Your task to perform on an android device: manage bookmarks in the chrome app Image 0: 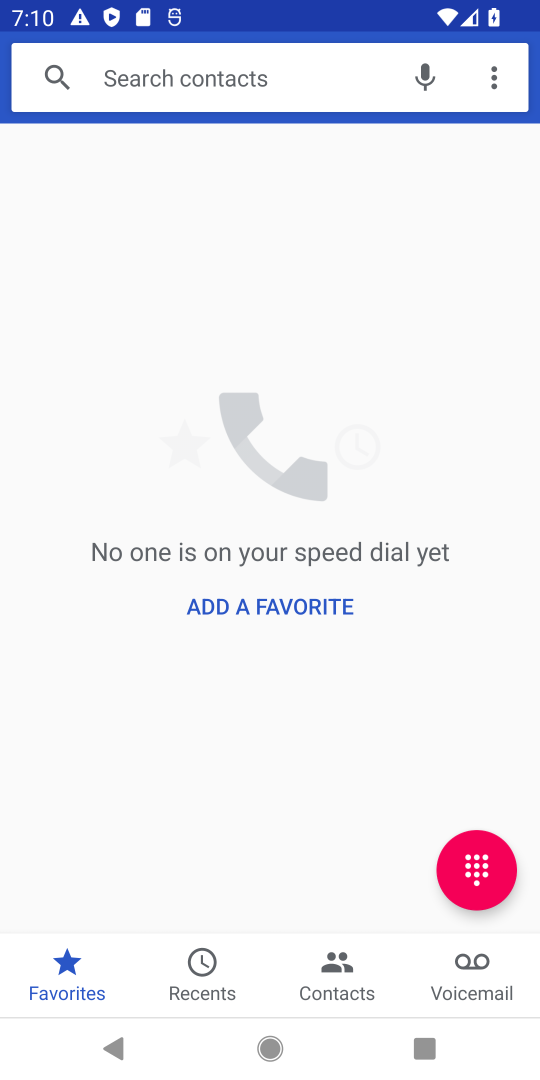
Step 0: press home button
Your task to perform on an android device: manage bookmarks in the chrome app Image 1: 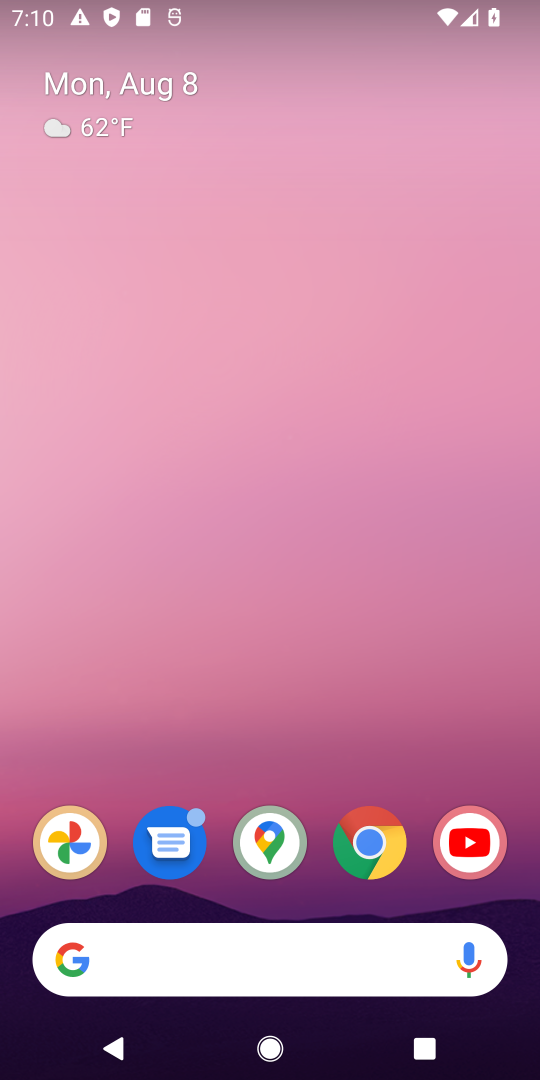
Step 1: click (353, 845)
Your task to perform on an android device: manage bookmarks in the chrome app Image 2: 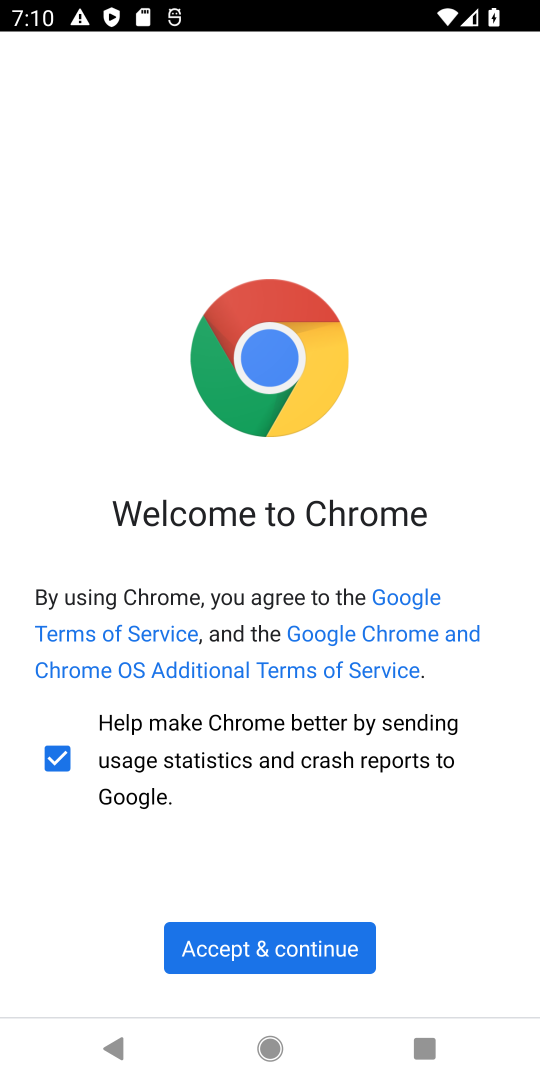
Step 2: click (289, 942)
Your task to perform on an android device: manage bookmarks in the chrome app Image 3: 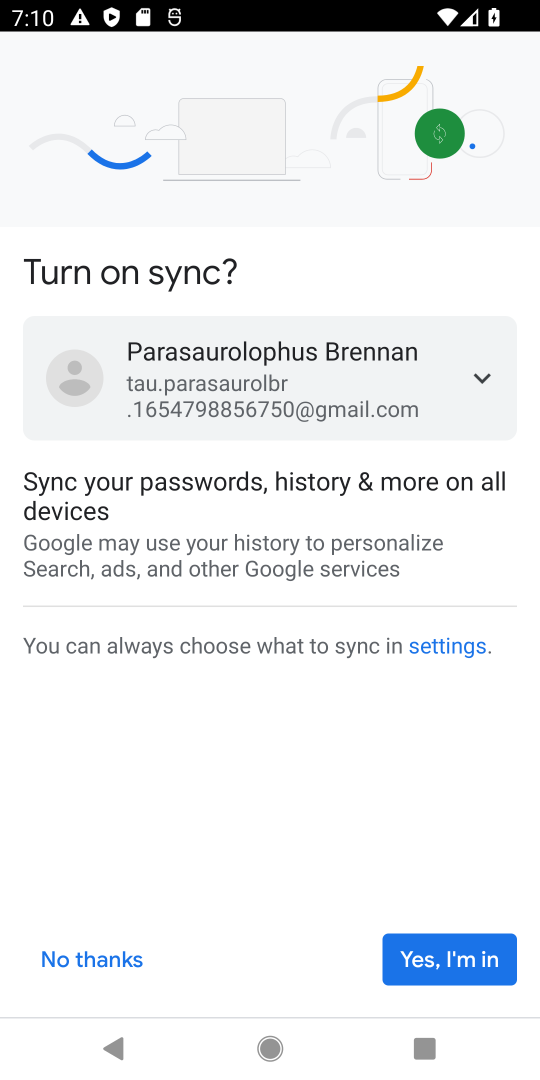
Step 3: click (483, 952)
Your task to perform on an android device: manage bookmarks in the chrome app Image 4: 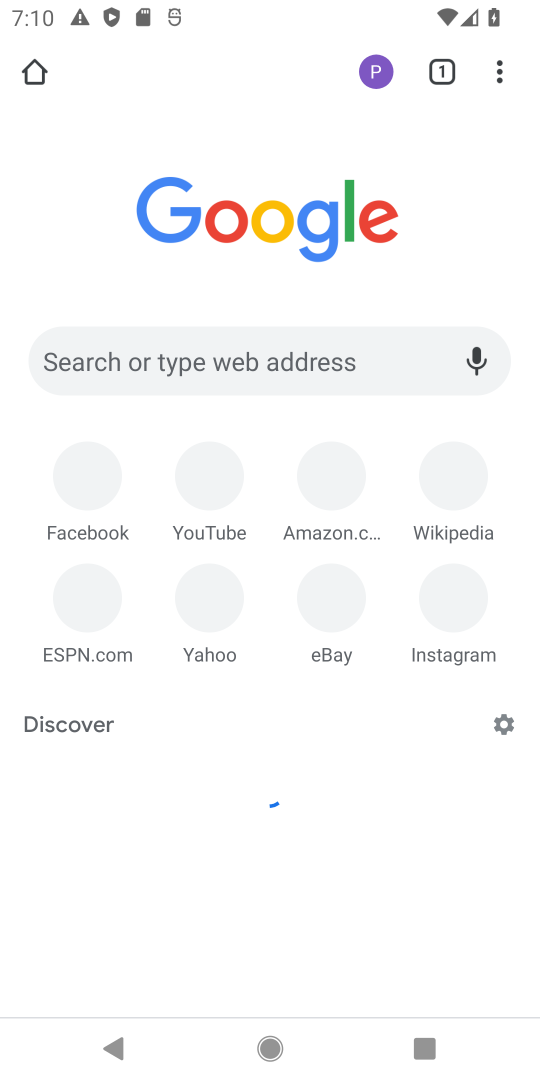
Step 4: click (501, 69)
Your task to perform on an android device: manage bookmarks in the chrome app Image 5: 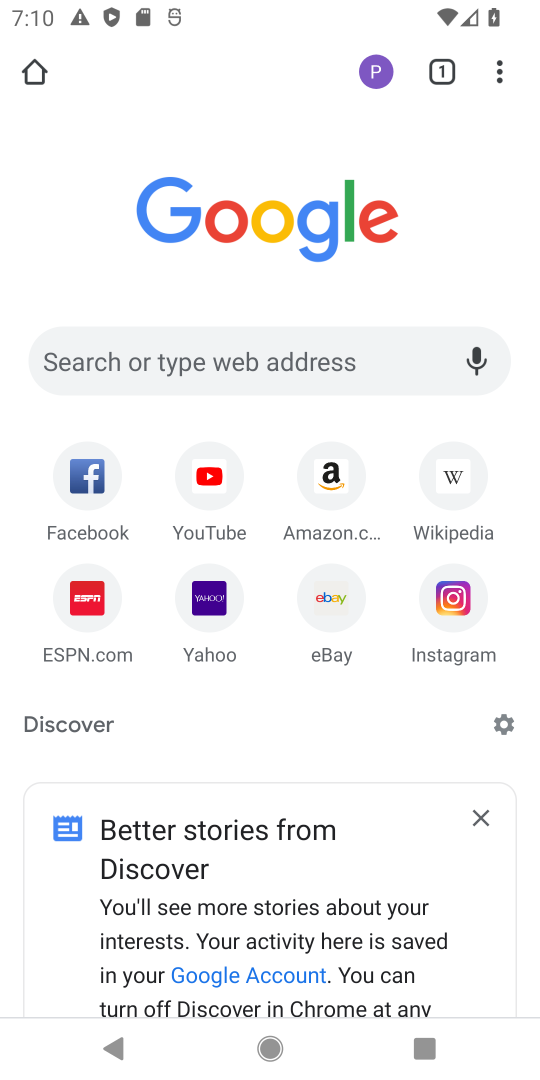
Step 5: click (498, 82)
Your task to perform on an android device: manage bookmarks in the chrome app Image 6: 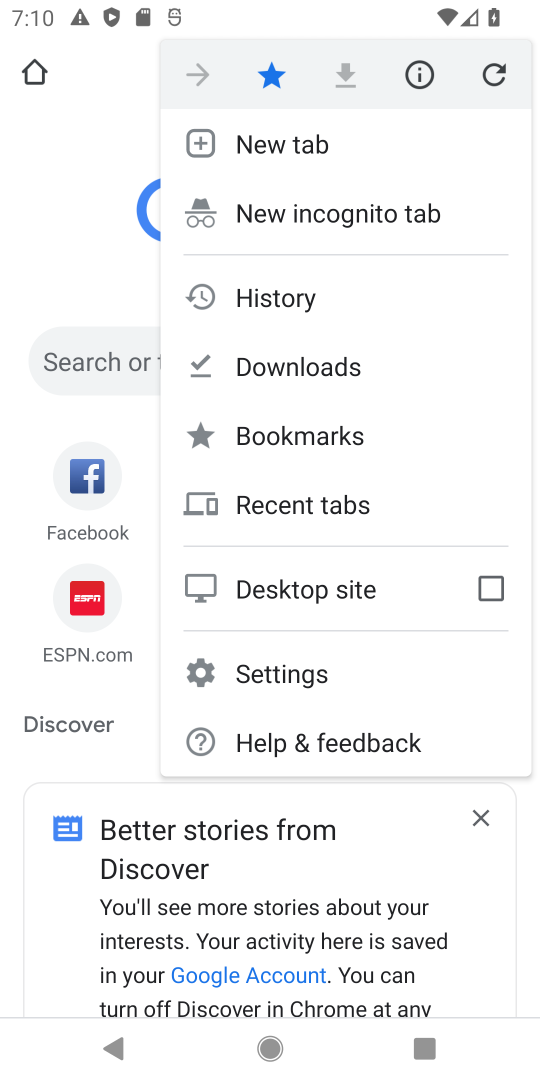
Step 6: click (293, 677)
Your task to perform on an android device: manage bookmarks in the chrome app Image 7: 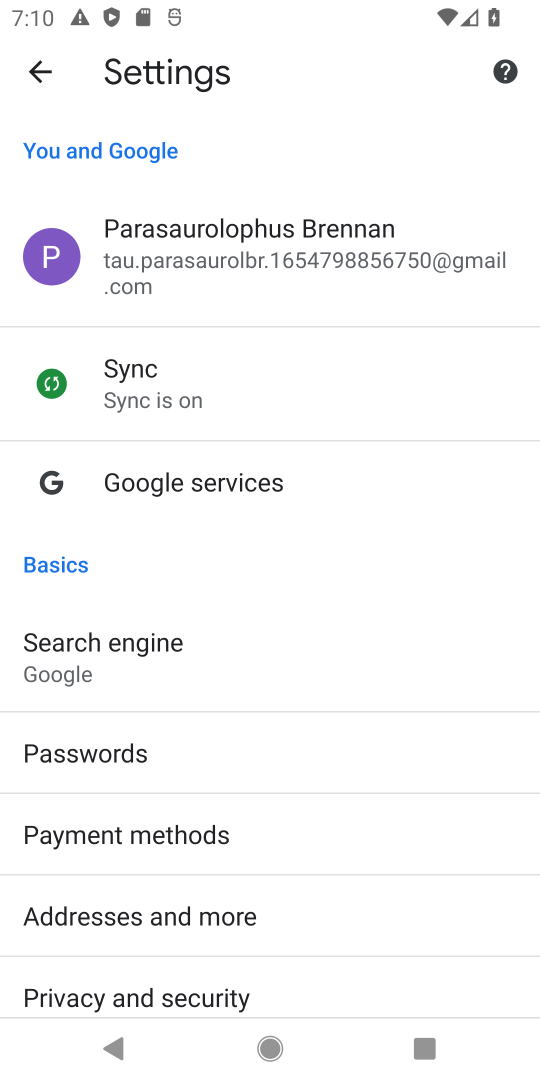
Step 7: drag from (446, 985) to (430, 369)
Your task to perform on an android device: manage bookmarks in the chrome app Image 8: 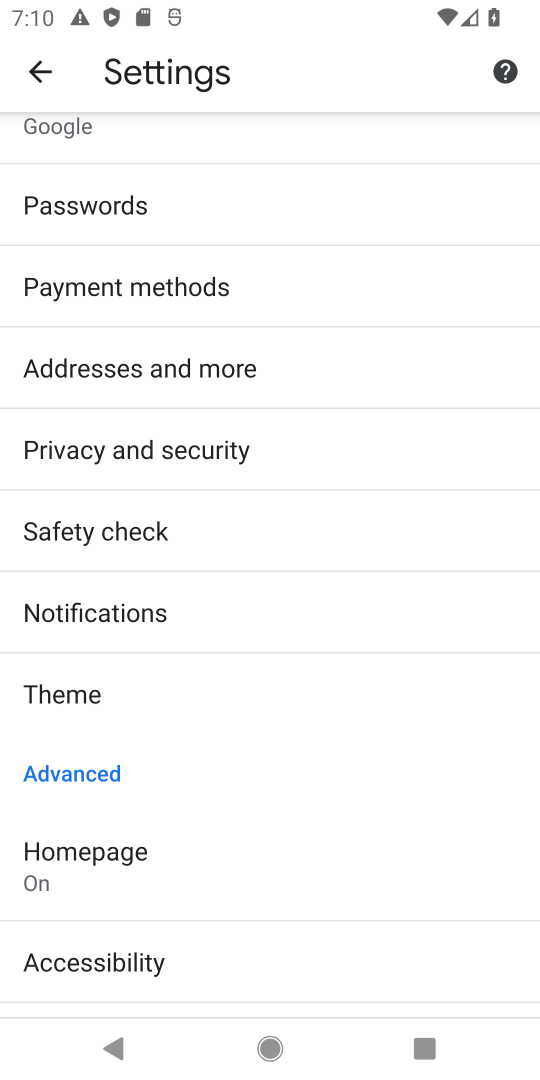
Step 8: drag from (401, 962) to (389, 490)
Your task to perform on an android device: manage bookmarks in the chrome app Image 9: 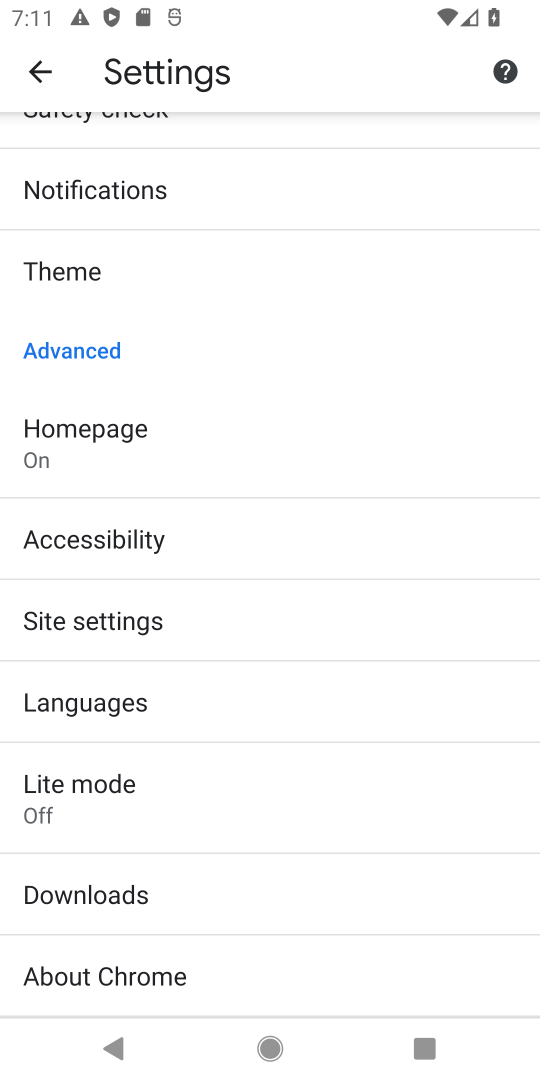
Step 9: drag from (349, 198) to (338, 877)
Your task to perform on an android device: manage bookmarks in the chrome app Image 10: 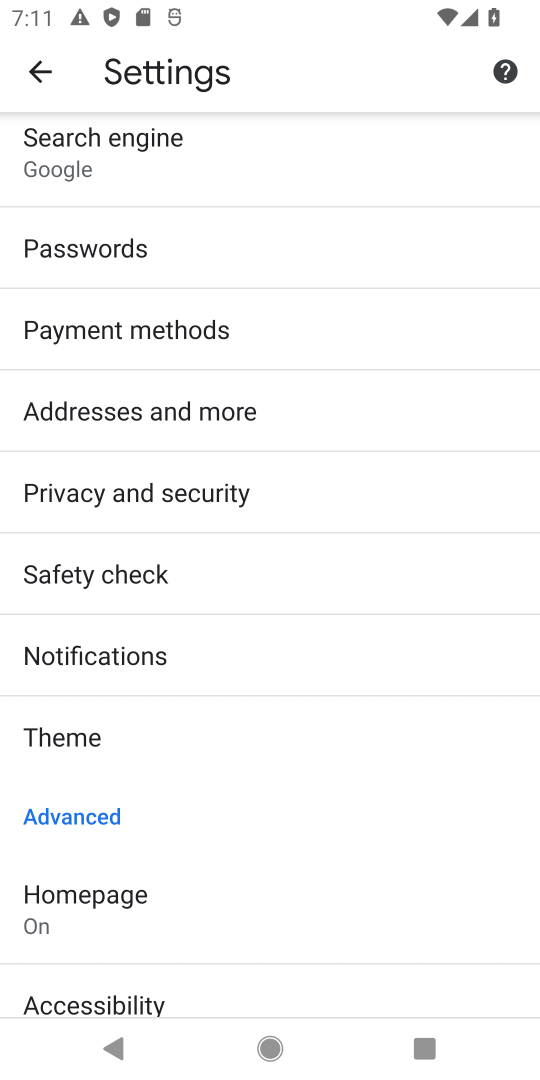
Step 10: click (26, 72)
Your task to perform on an android device: manage bookmarks in the chrome app Image 11: 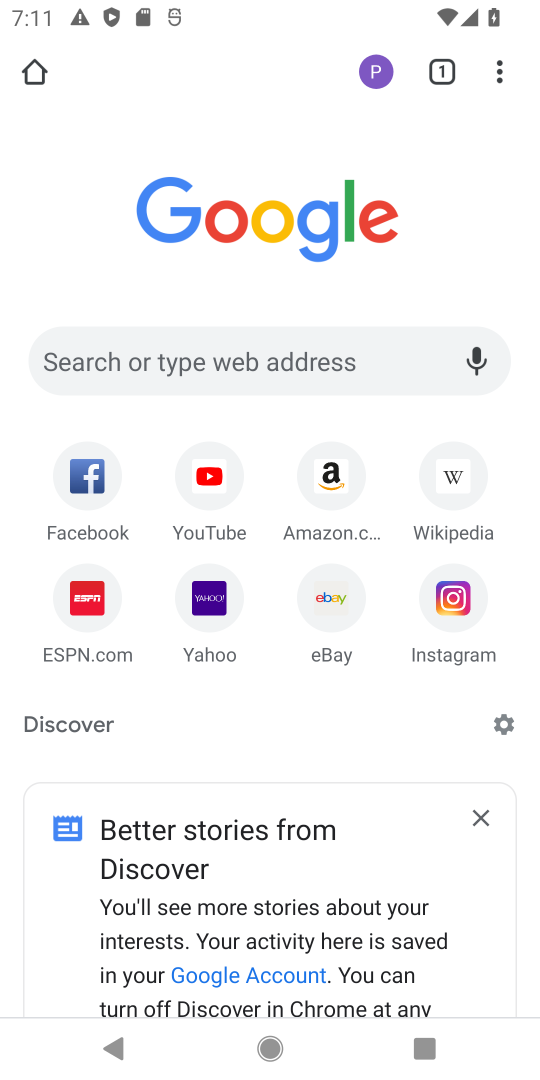
Step 11: click (504, 65)
Your task to perform on an android device: manage bookmarks in the chrome app Image 12: 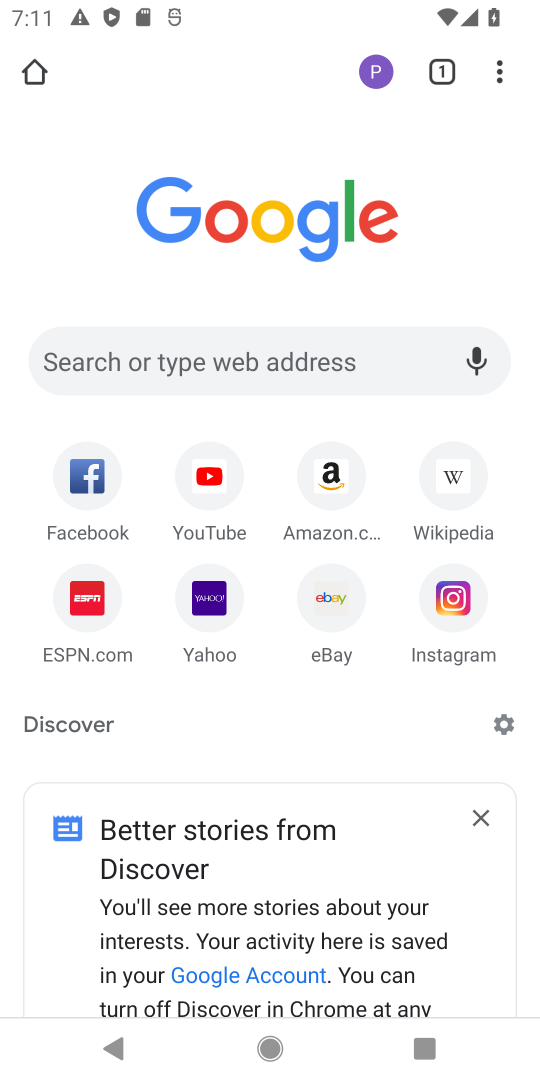
Step 12: click (504, 65)
Your task to perform on an android device: manage bookmarks in the chrome app Image 13: 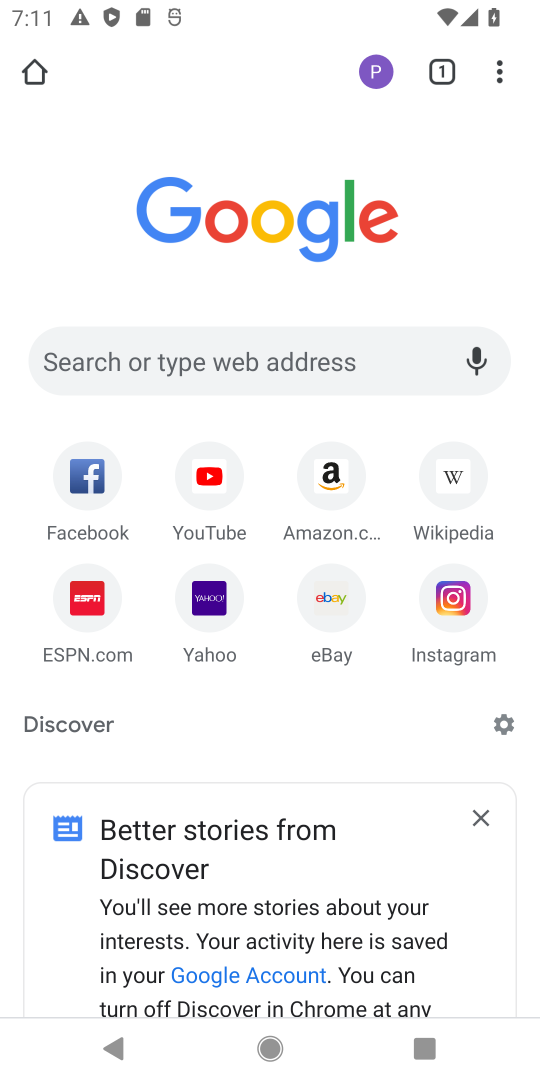
Step 13: click (497, 74)
Your task to perform on an android device: manage bookmarks in the chrome app Image 14: 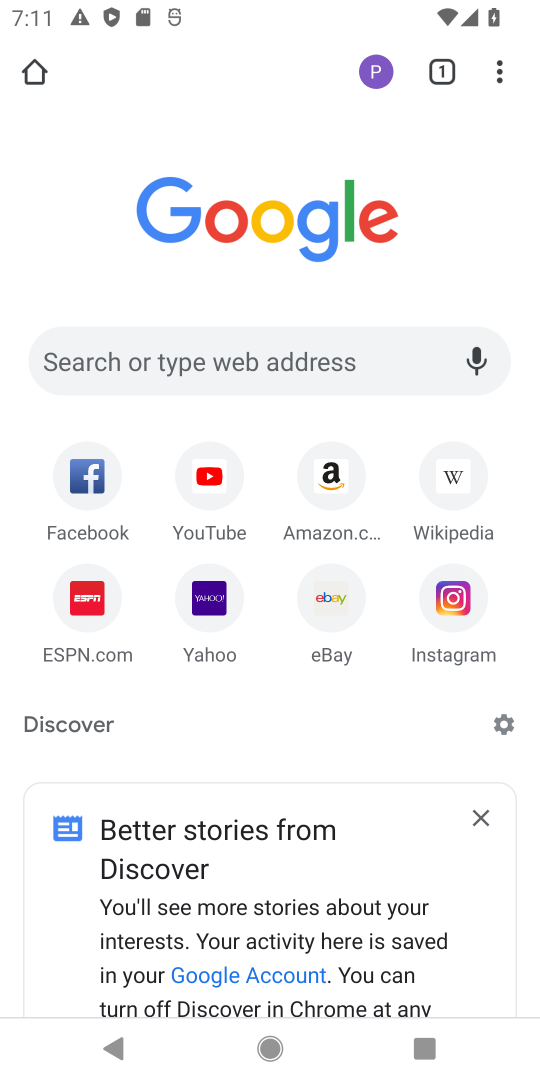
Step 14: click (497, 74)
Your task to perform on an android device: manage bookmarks in the chrome app Image 15: 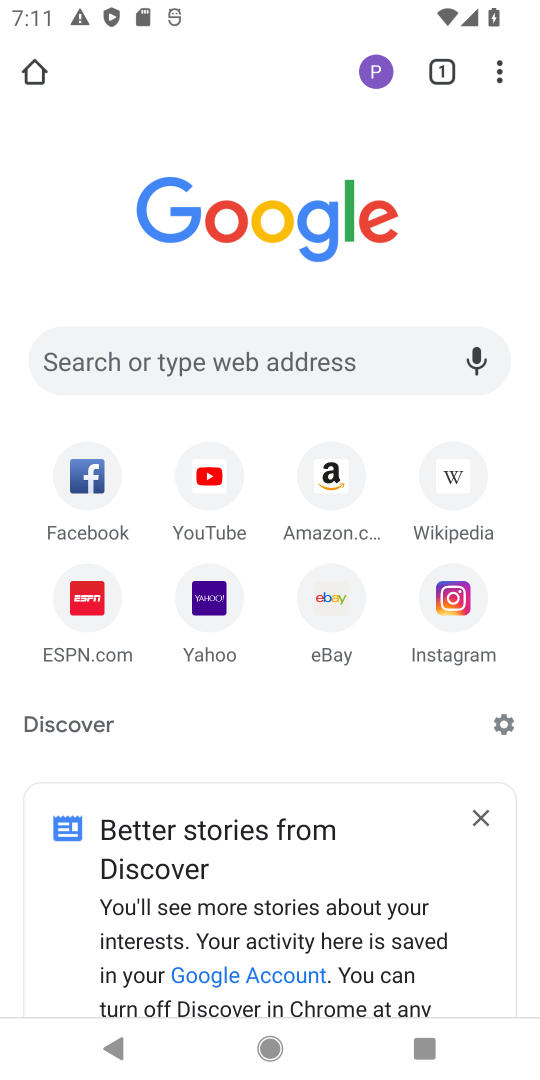
Step 15: click (497, 74)
Your task to perform on an android device: manage bookmarks in the chrome app Image 16: 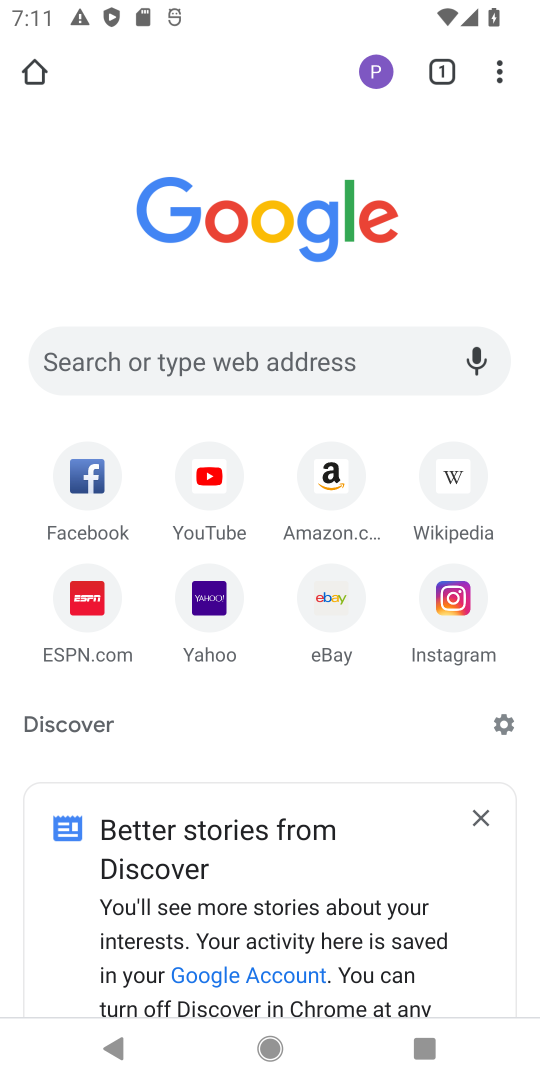
Step 16: click (496, 70)
Your task to perform on an android device: manage bookmarks in the chrome app Image 17: 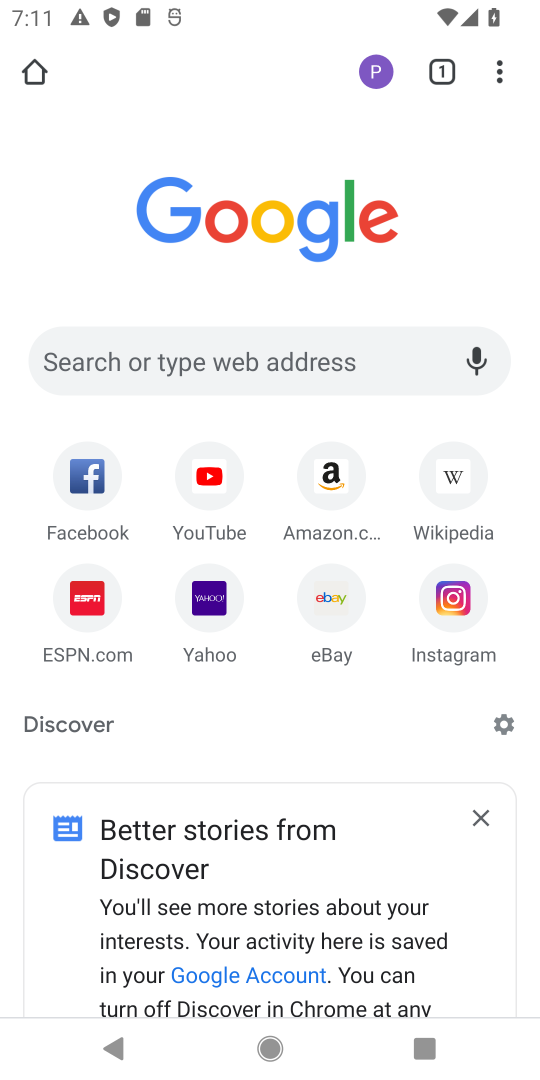
Step 17: click (496, 70)
Your task to perform on an android device: manage bookmarks in the chrome app Image 18: 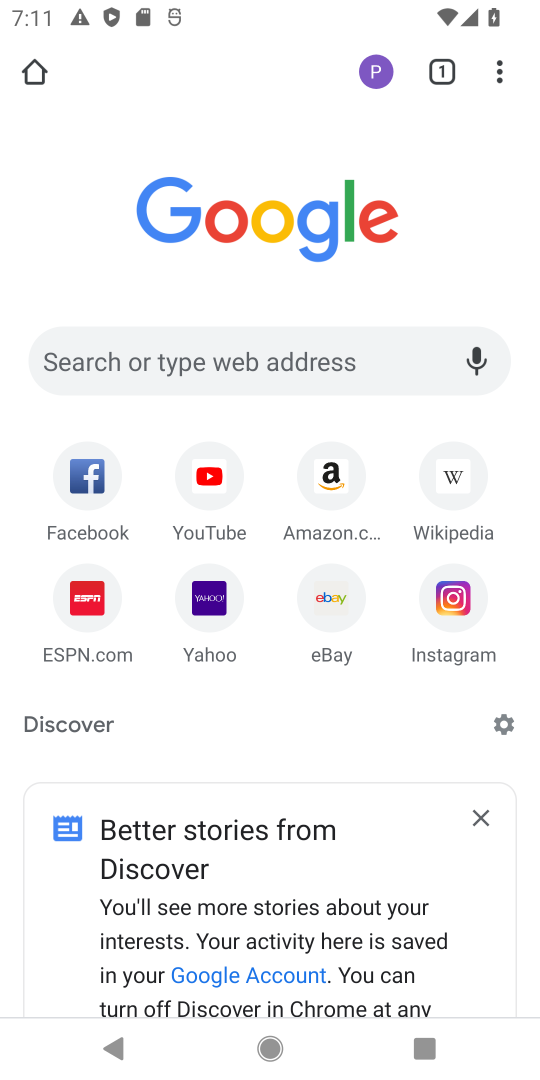
Step 18: click (496, 70)
Your task to perform on an android device: manage bookmarks in the chrome app Image 19: 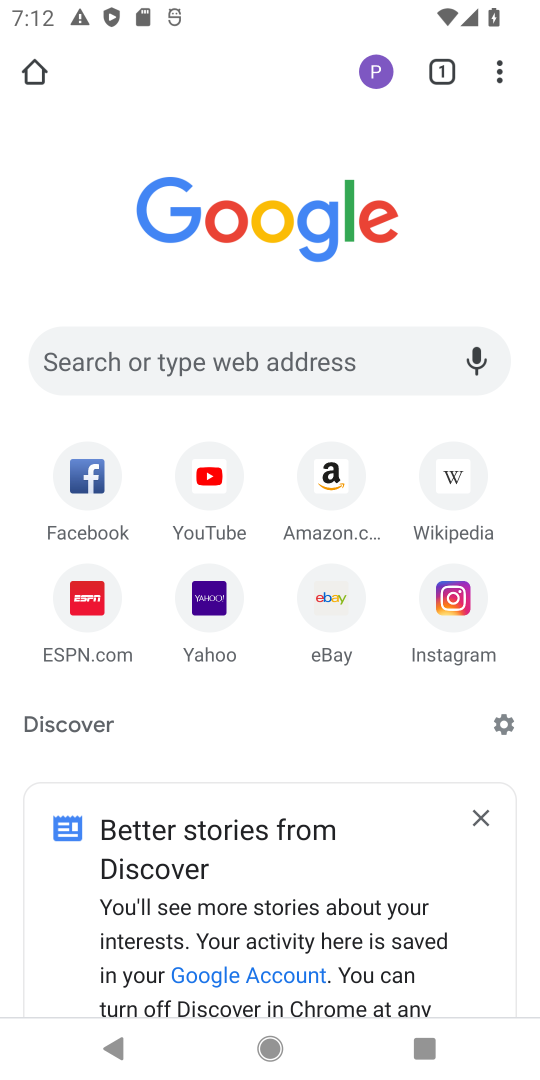
Step 19: click (500, 68)
Your task to perform on an android device: manage bookmarks in the chrome app Image 20: 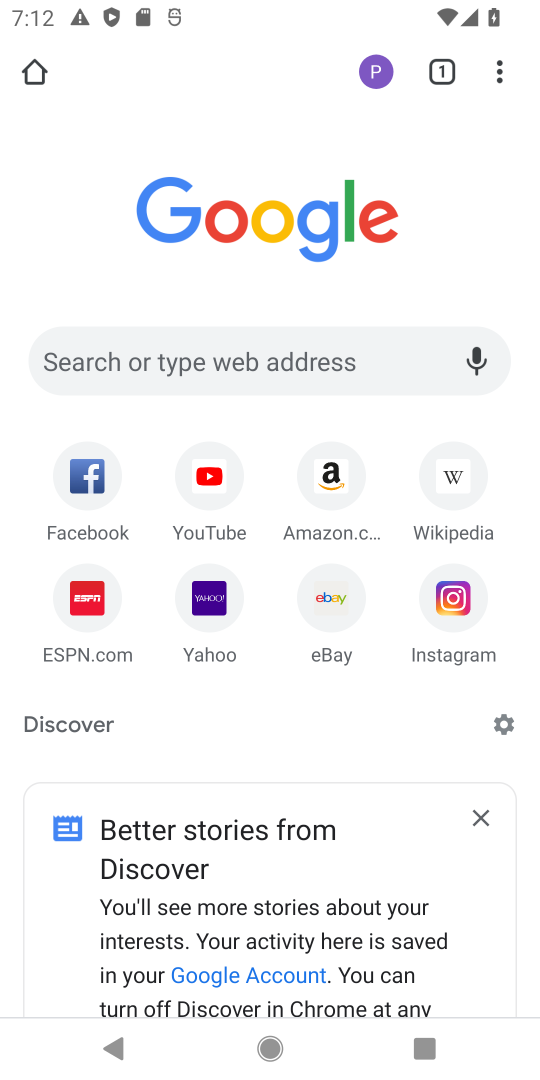
Step 20: click (502, 68)
Your task to perform on an android device: manage bookmarks in the chrome app Image 21: 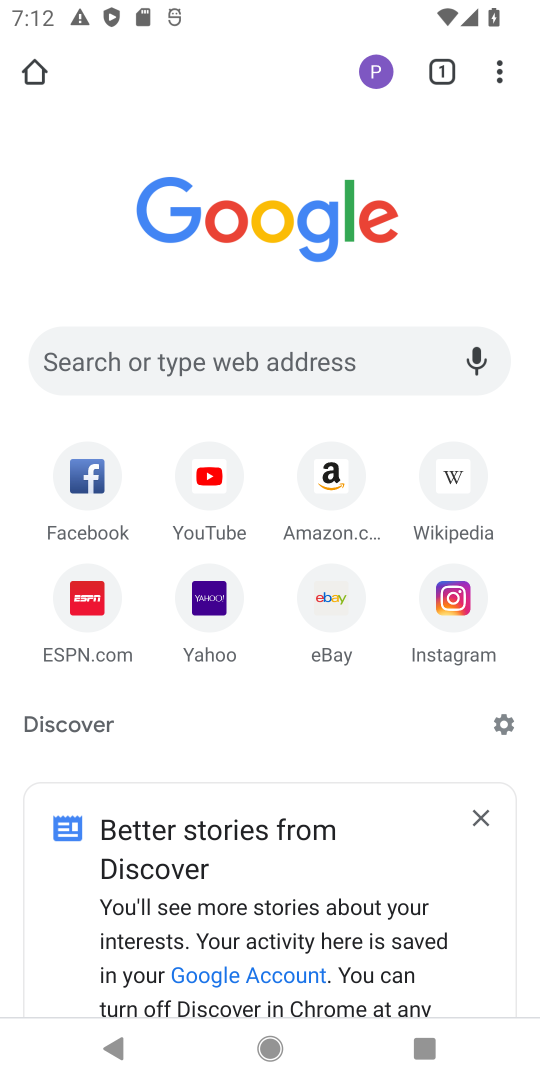
Step 21: click (502, 68)
Your task to perform on an android device: manage bookmarks in the chrome app Image 22: 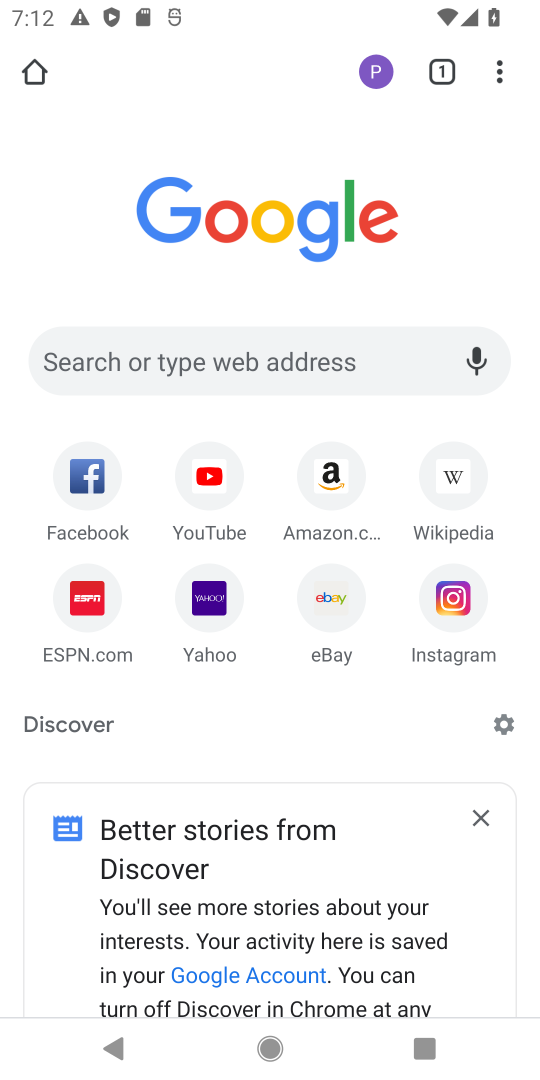
Step 22: click (502, 68)
Your task to perform on an android device: manage bookmarks in the chrome app Image 23: 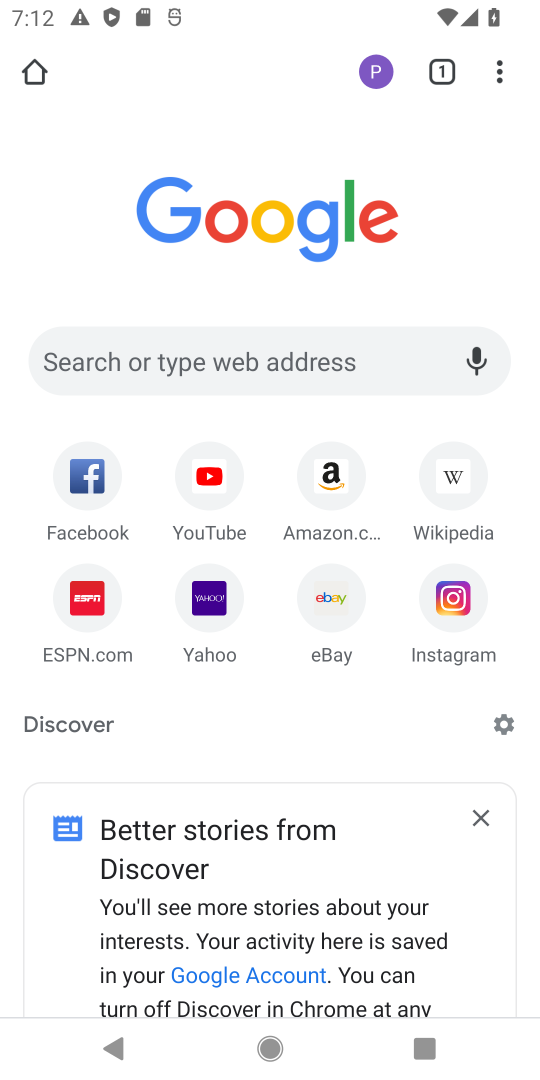
Step 23: click (502, 68)
Your task to perform on an android device: manage bookmarks in the chrome app Image 24: 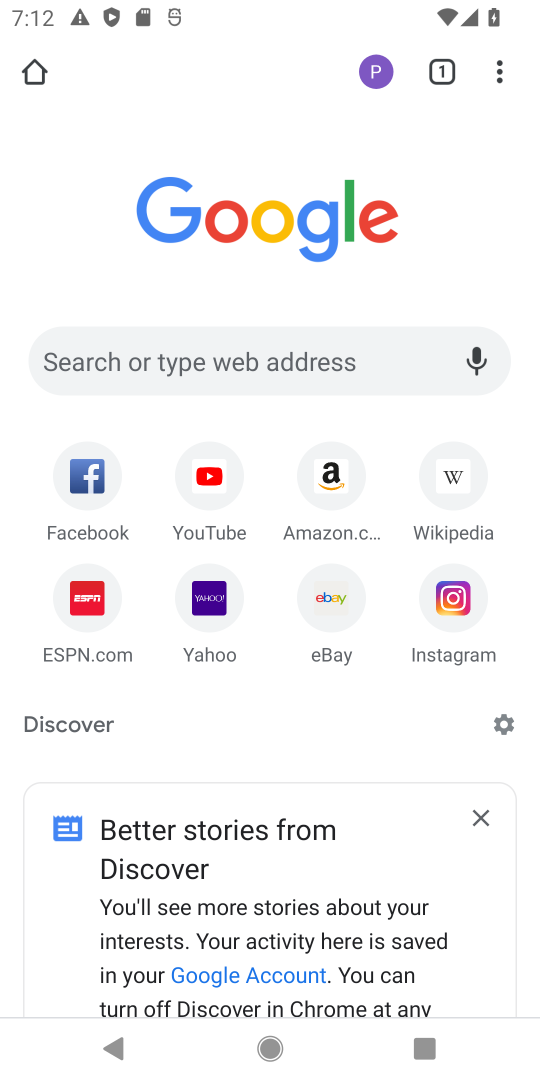
Step 24: click (499, 64)
Your task to perform on an android device: manage bookmarks in the chrome app Image 25: 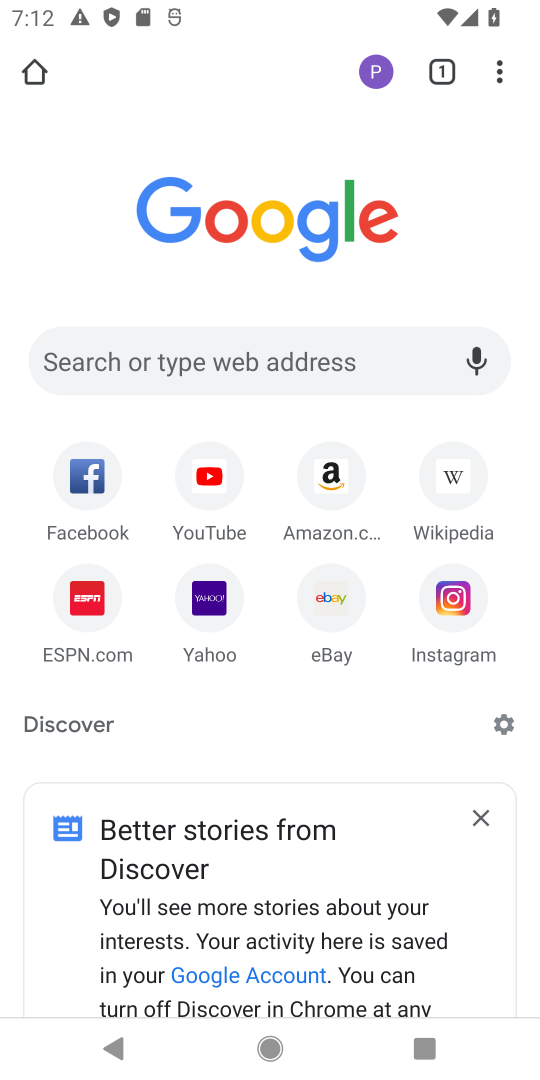
Step 25: click (501, 64)
Your task to perform on an android device: manage bookmarks in the chrome app Image 26: 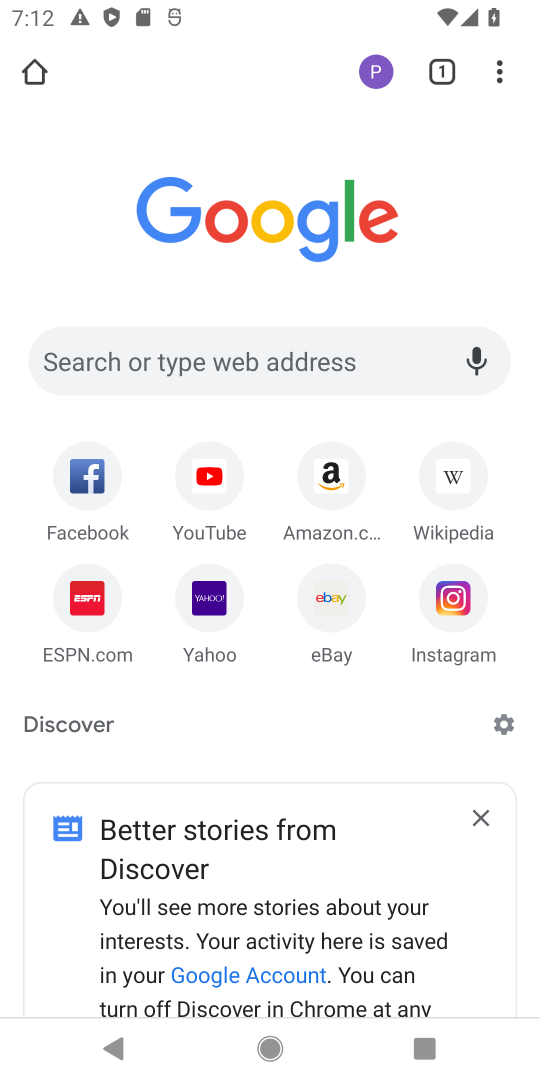
Step 26: click (501, 64)
Your task to perform on an android device: manage bookmarks in the chrome app Image 27: 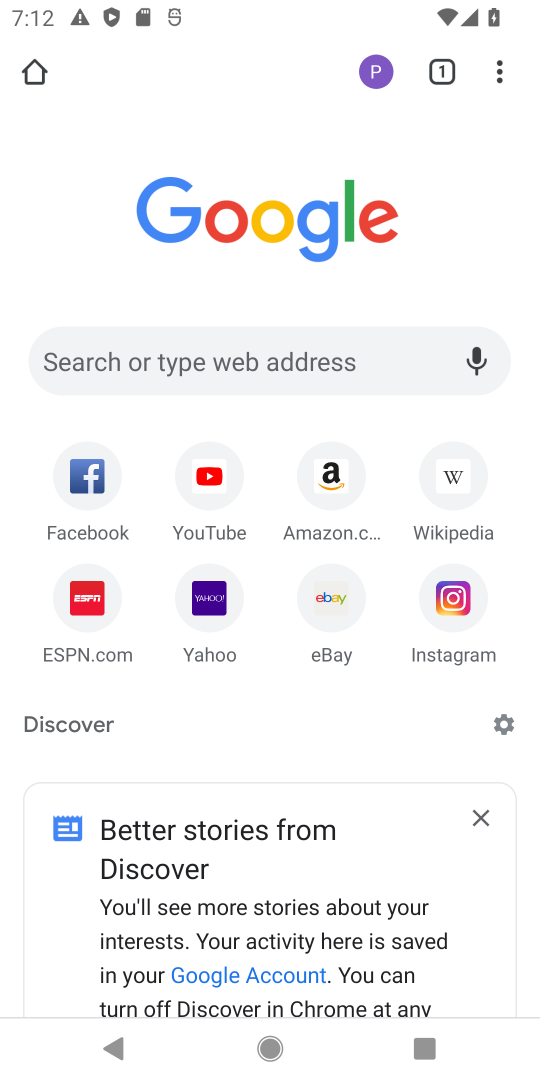
Step 27: click (501, 64)
Your task to perform on an android device: manage bookmarks in the chrome app Image 28: 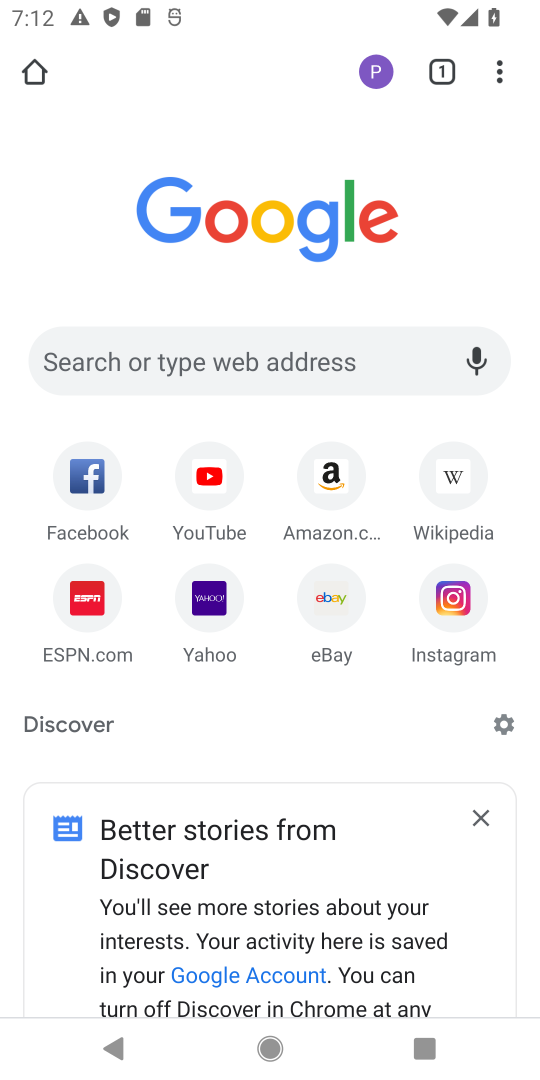
Step 28: click (498, 68)
Your task to perform on an android device: manage bookmarks in the chrome app Image 29: 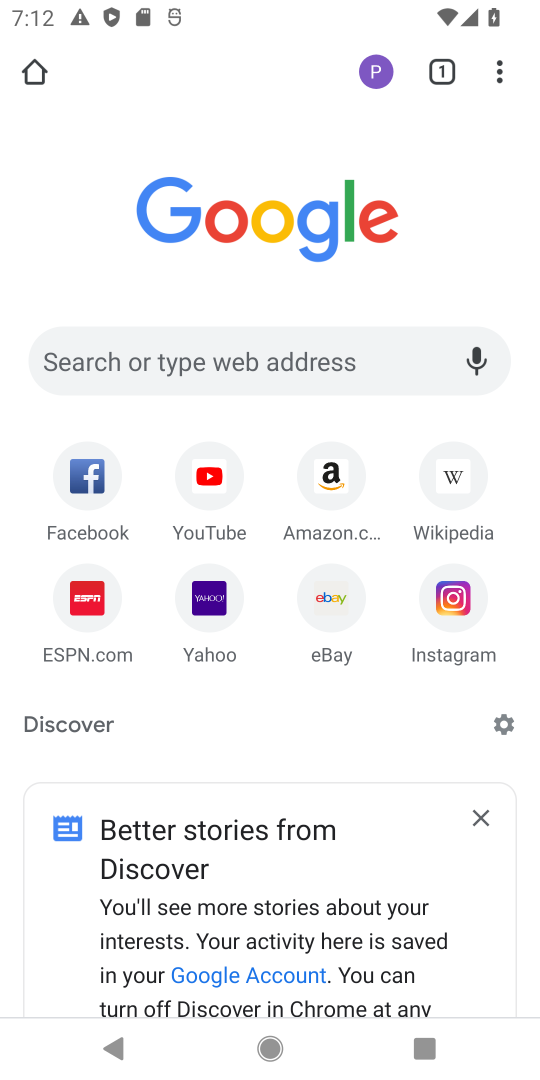
Step 29: click (498, 68)
Your task to perform on an android device: manage bookmarks in the chrome app Image 30: 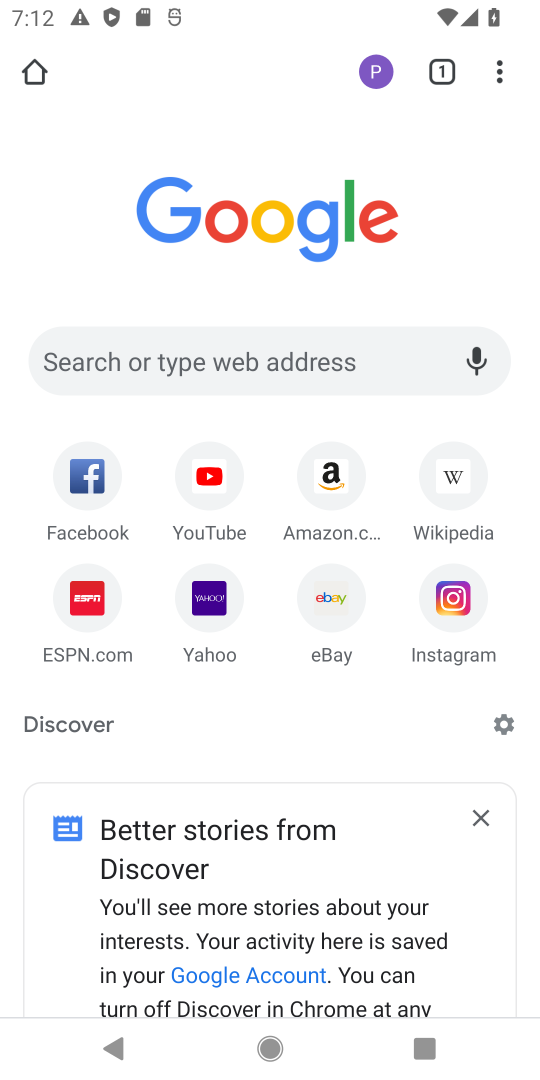
Step 30: click (496, 64)
Your task to perform on an android device: manage bookmarks in the chrome app Image 31: 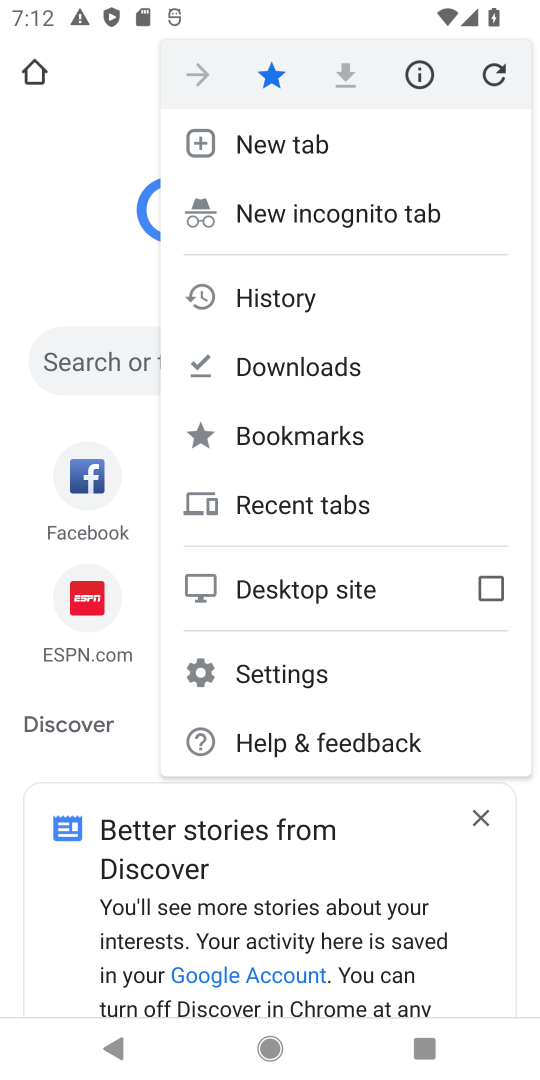
Step 31: click (287, 427)
Your task to perform on an android device: manage bookmarks in the chrome app Image 32: 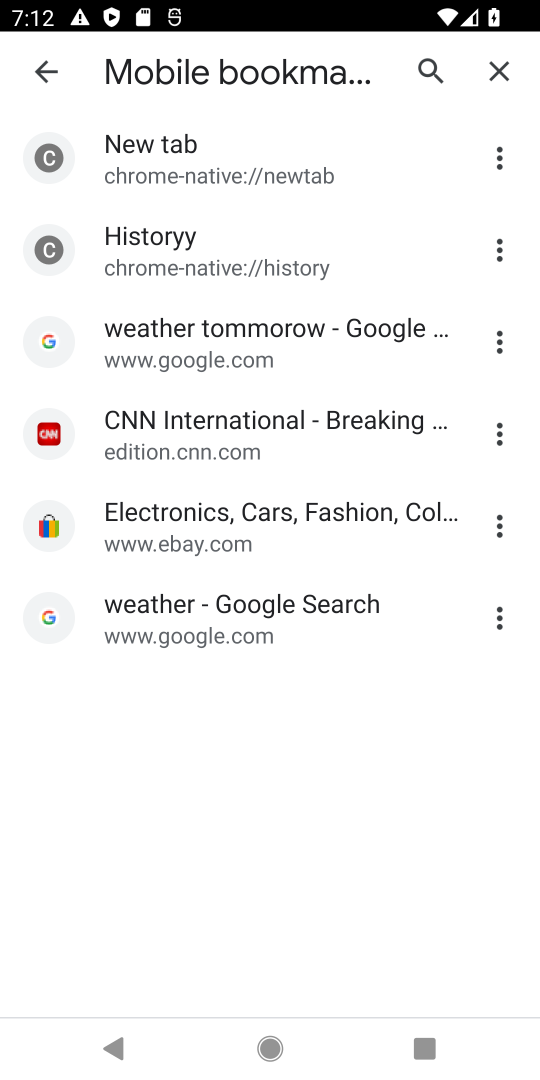
Step 32: click (494, 150)
Your task to perform on an android device: manage bookmarks in the chrome app Image 33: 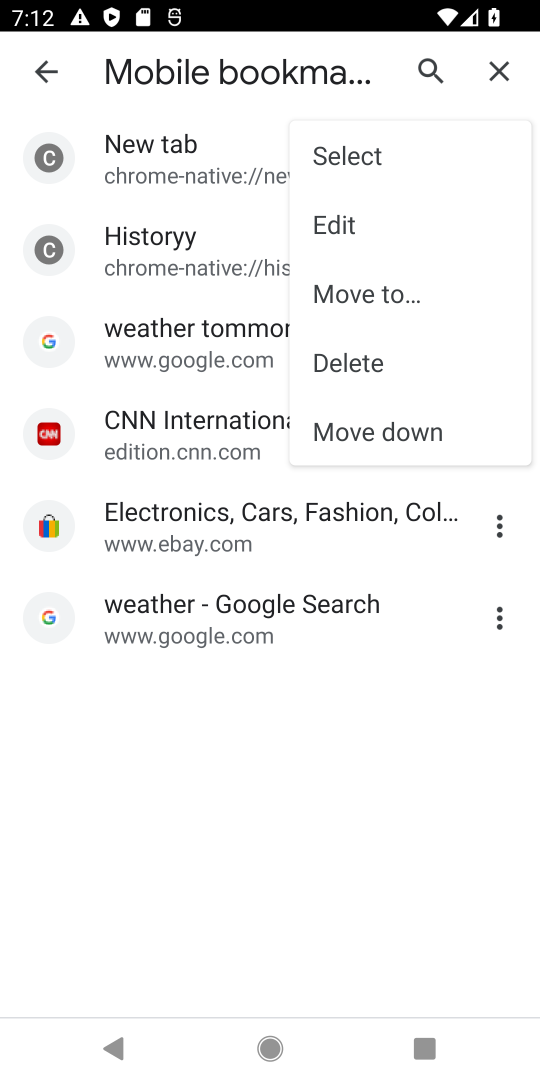
Step 33: click (313, 355)
Your task to perform on an android device: manage bookmarks in the chrome app Image 34: 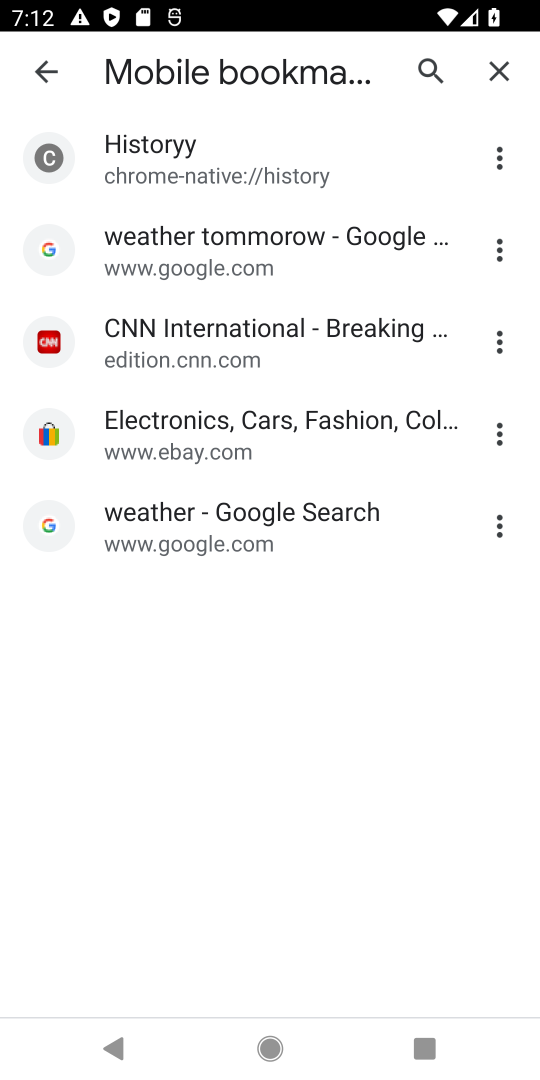
Step 34: task complete